Your task to perform on an android device: Open calendar and show me the fourth week of next month Image 0: 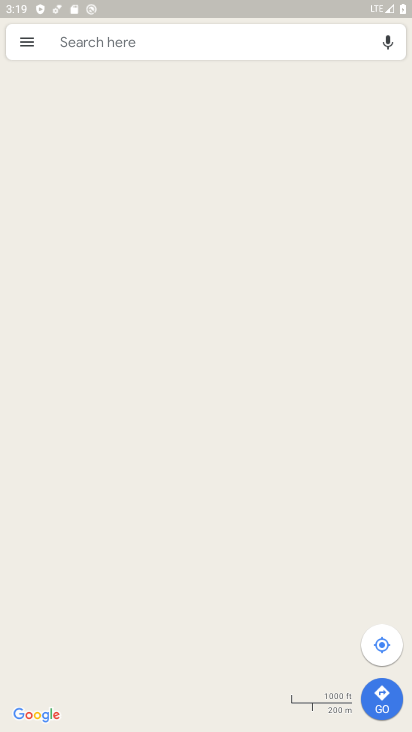
Step 0: press home button
Your task to perform on an android device: Open calendar and show me the fourth week of next month Image 1: 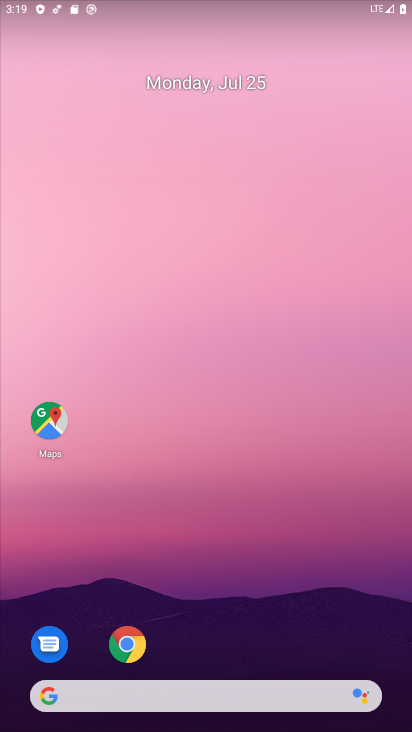
Step 1: drag from (247, 642) to (218, 46)
Your task to perform on an android device: Open calendar and show me the fourth week of next month Image 2: 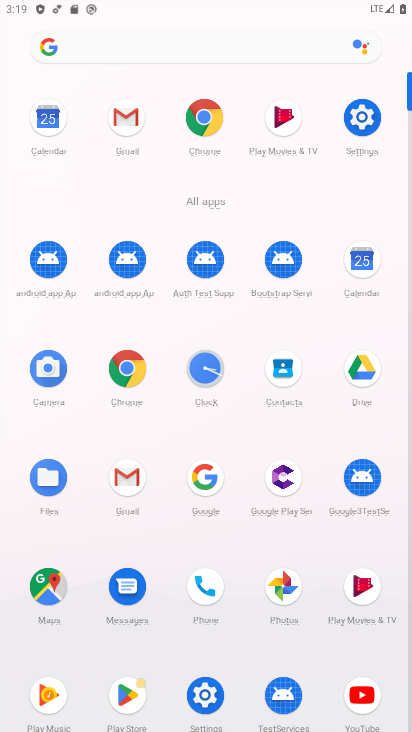
Step 2: click (366, 269)
Your task to perform on an android device: Open calendar and show me the fourth week of next month Image 3: 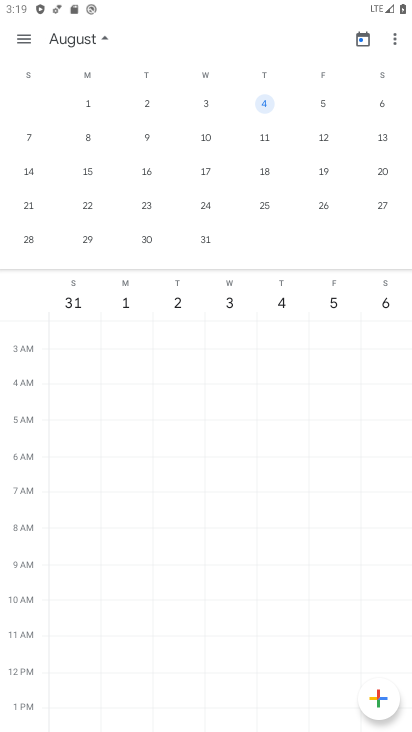
Step 3: click (208, 202)
Your task to perform on an android device: Open calendar and show me the fourth week of next month Image 4: 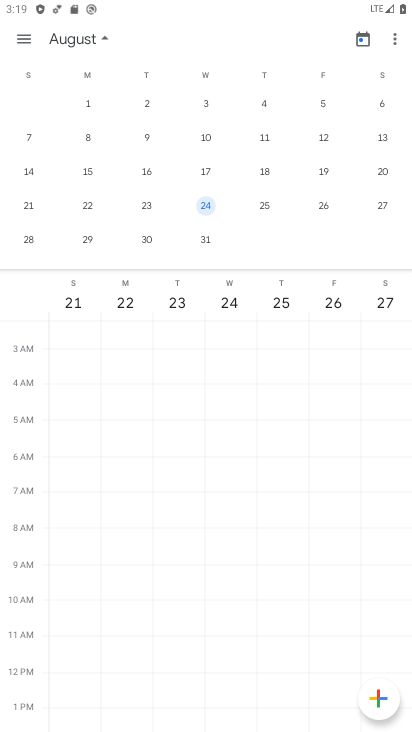
Step 4: task complete